Your task to perform on an android device: Go to eBay Image 0: 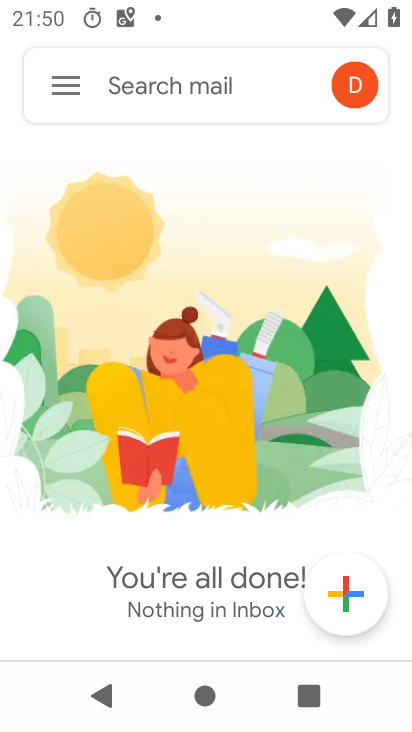
Step 0: press home button
Your task to perform on an android device: Go to eBay Image 1: 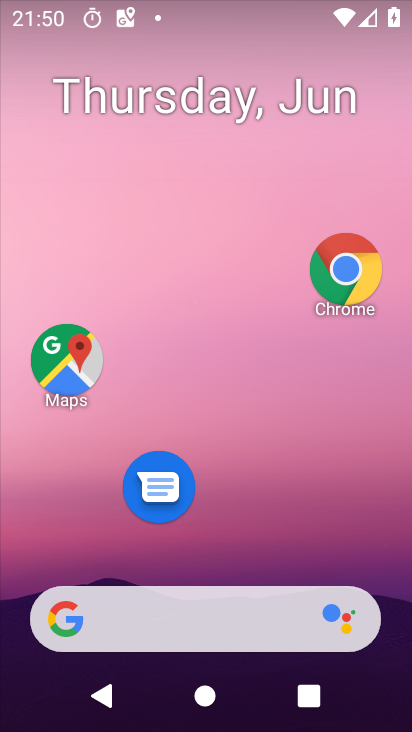
Step 1: drag from (223, 559) to (241, 93)
Your task to perform on an android device: Go to eBay Image 2: 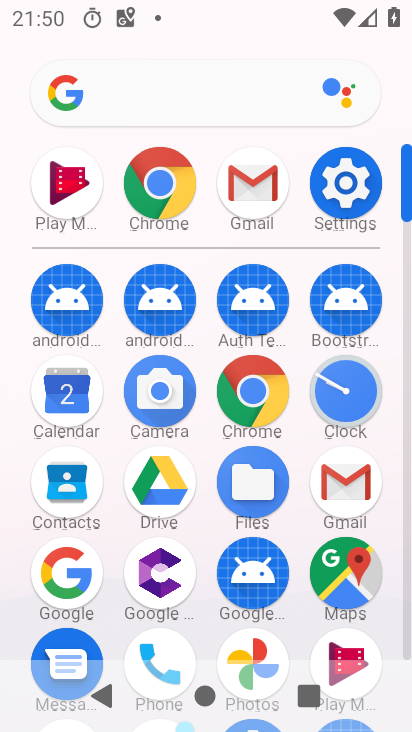
Step 2: click (195, 104)
Your task to perform on an android device: Go to eBay Image 3: 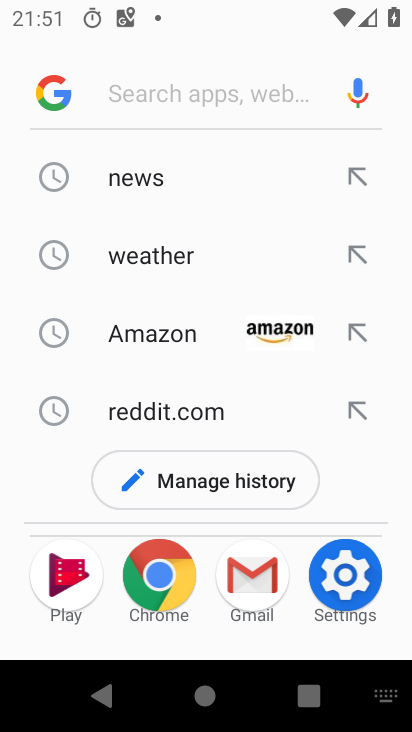
Step 3: type "eBay"
Your task to perform on an android device: Go to eBay Image 4: 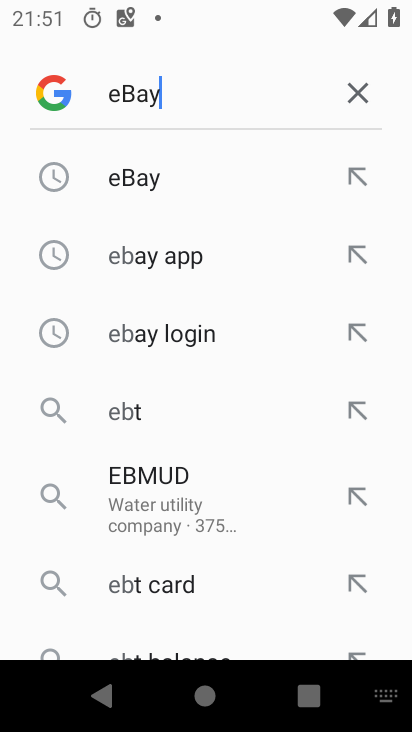
Step 4: type ""
Your task to perform on an android device: Go to eBay Image 5: 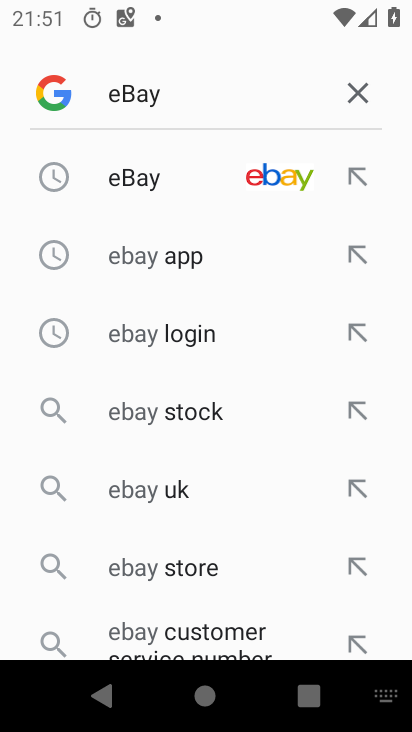
Step 5: click (260, 186)
Your task to perform on an android device: Go to eBay Image 6: 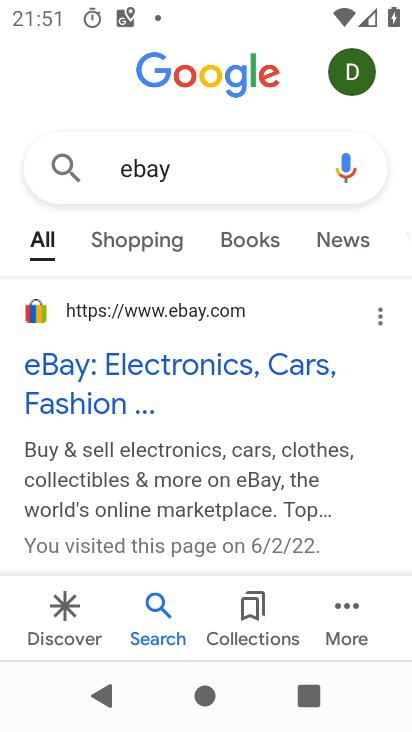
Step 6: click (103, 378)
Your task to perform on an android device: Go to eBay Image 7: 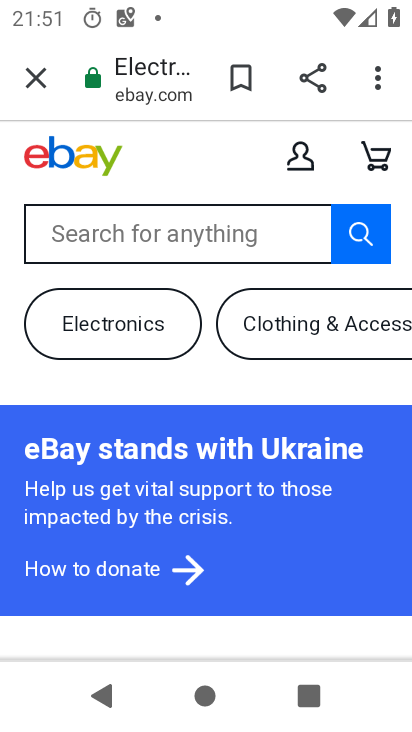
Step 7: task complete